Your task to perform on an android device: Open the Play Movies app and select the watchlist tab. Image 0: 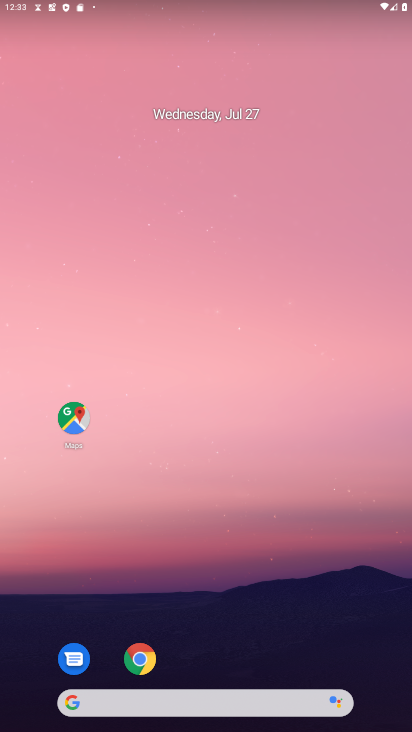
Step 0: press home button
Your task to perform on an android device: Open the Play Movies app and select the watchlist tab. Image 1: 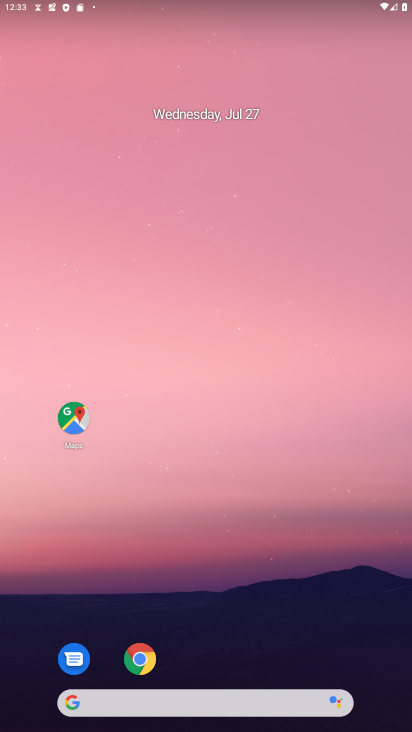
Step 1: drag from (225, 666) to (231, 207)
Your task to perform on an android device: Open the Play Movies app and select the watchlist tab. Image 2: 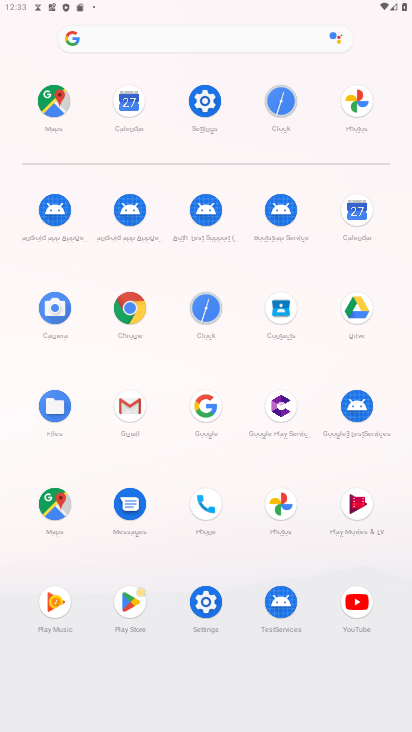
Step 2: click (357, 502)
Your task to perform on an android device: Open the Play Movies app and select the watchlist tab. Image 3: 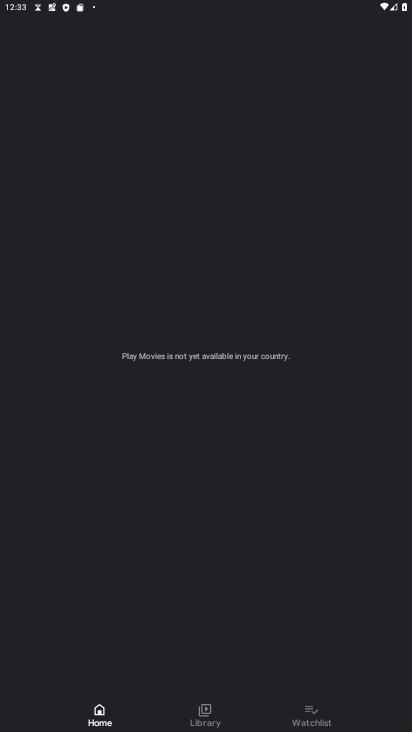
Step 3: click (304, 712)
Your task to perform on an android device: Open the Play Movies app and select the watchlist tab. Image 4: 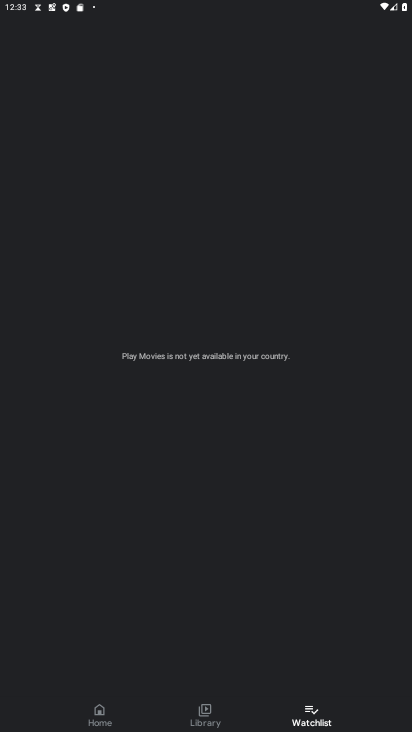
Step 4: task complete